Your task to perform on an android device: search for starred emails in the gmail app Image 0: 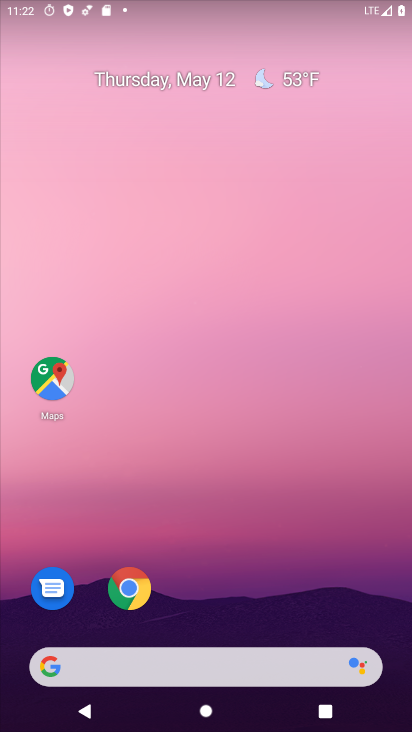
Step 0: drag from (246, 591) to (221, 98)
Your task to perform on an android device: search for starred emails in the gmail app Image 1: 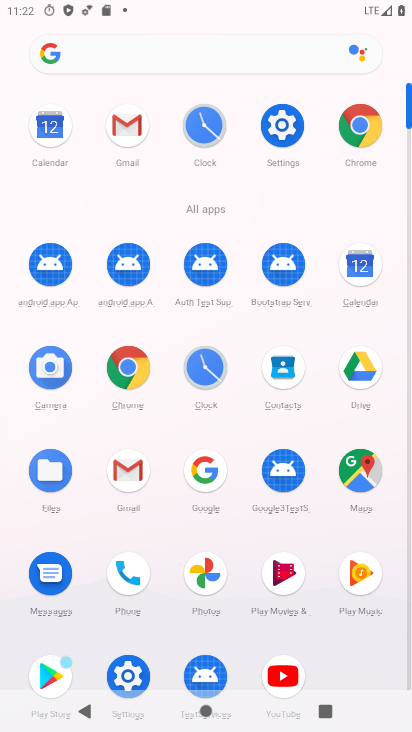
Step 1: click (137, 478)
Your task to perform on an android device: search for starred emails in the gmail app Image 2: 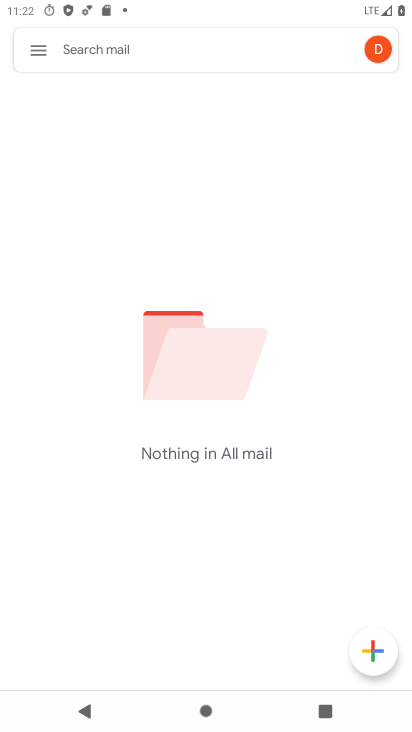
Step 2: click (52, 54)
Your task to perform on an android device: search for starred emails in the gmail app Image 3: 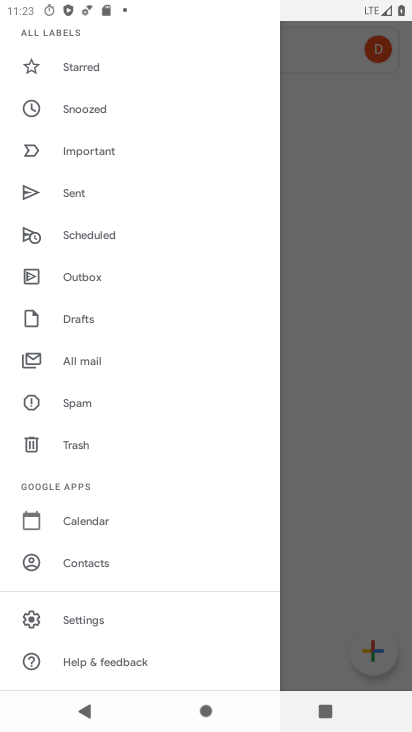
Step 3: click (91, 56)
Your task to perform on an android device: search for starred emails in the gmail app Image 4: 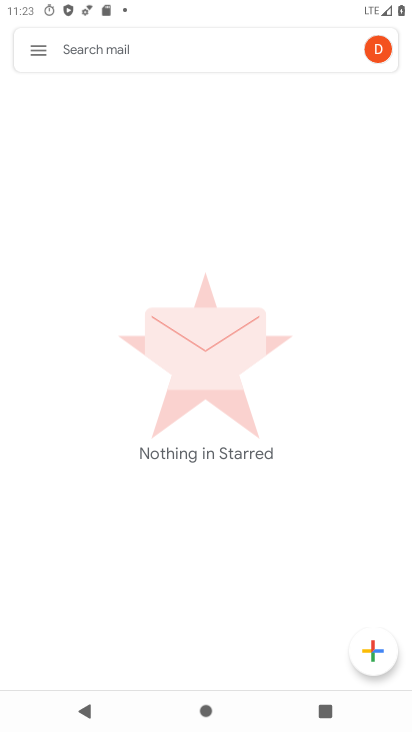
Step 4: task complete